Your task to perform on an android device: turn off notifications in google photos Image 0: 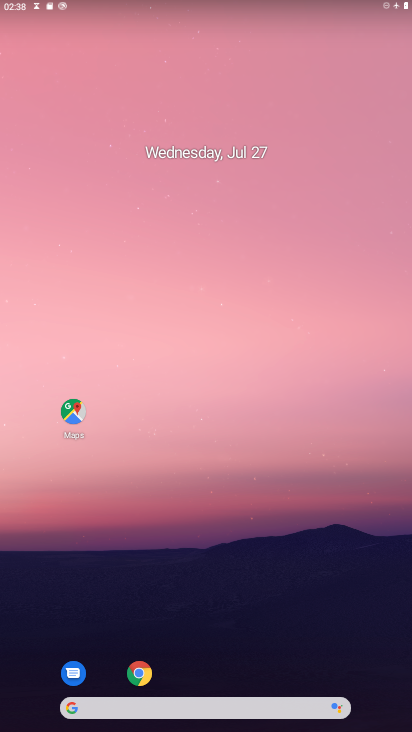
Step 0: drag from (175, 675) to (178, 274)
Your task to perform on an android device: turn off notifications in google photos Image 1: 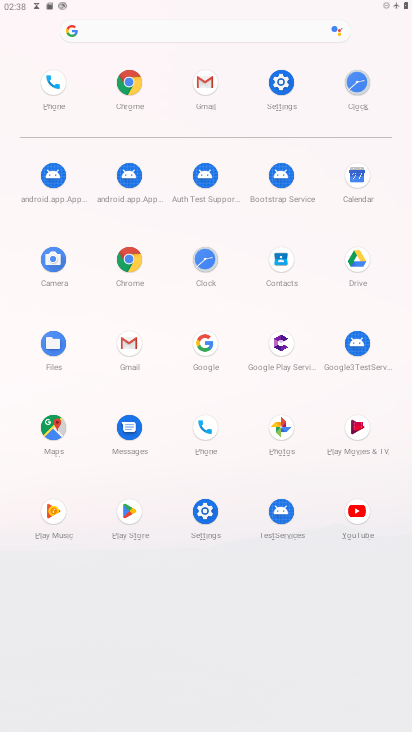
Step 1: click (275, 434)
Your task to perform on an android device: turn off notifications in google photos Image 2: 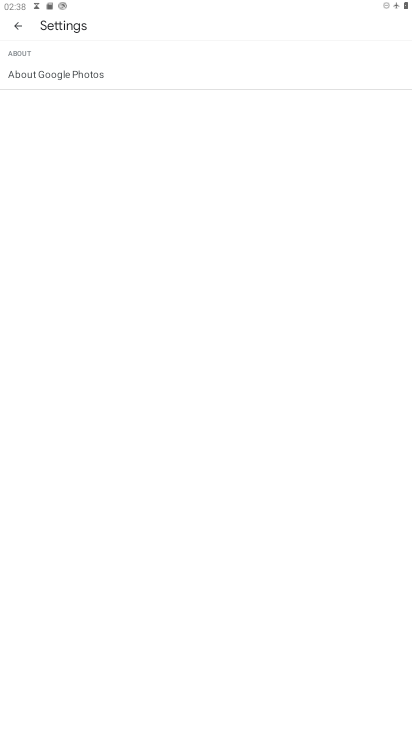
Step 2: click (12, 27)
Your task to perform on an android device: turn off notifications in google photos Image 3: 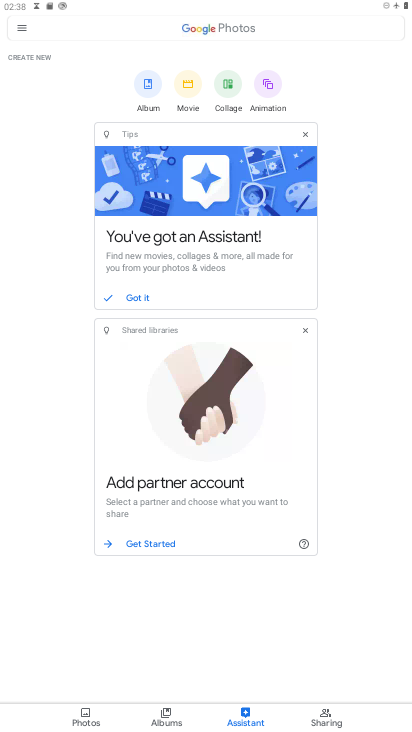
Step 3: click (24, 27)
Your task to perform on an android device: turn off notifications in google photos Image 4: 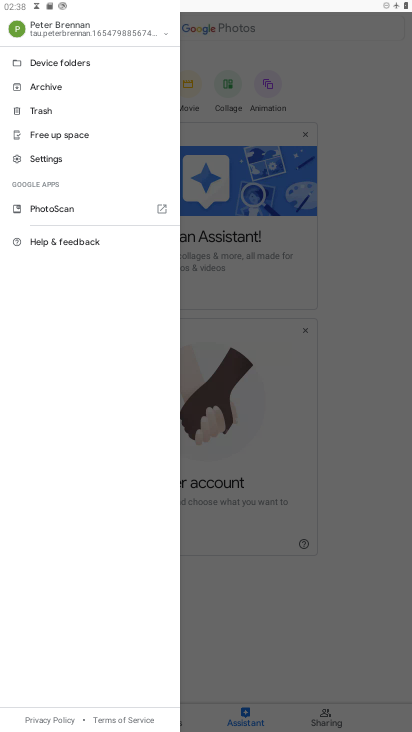
Step 4: click (40, 164)
Your task to perform on an android device: turn off notifications in google photos Image 5: 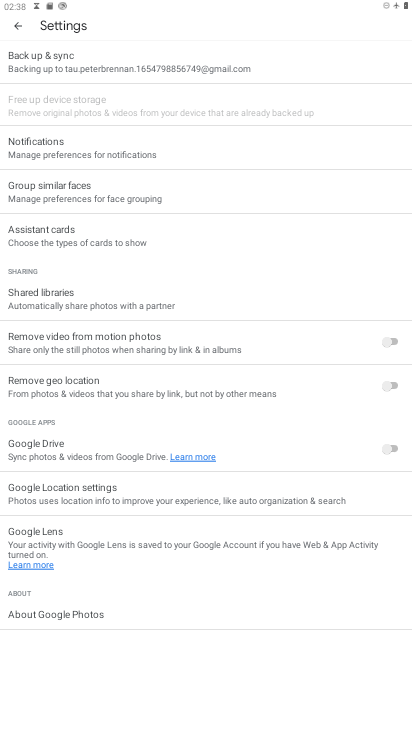
Step 5: click (62, 142)
Your task to perform on an android device: turn off notifications in google photos Image 6: 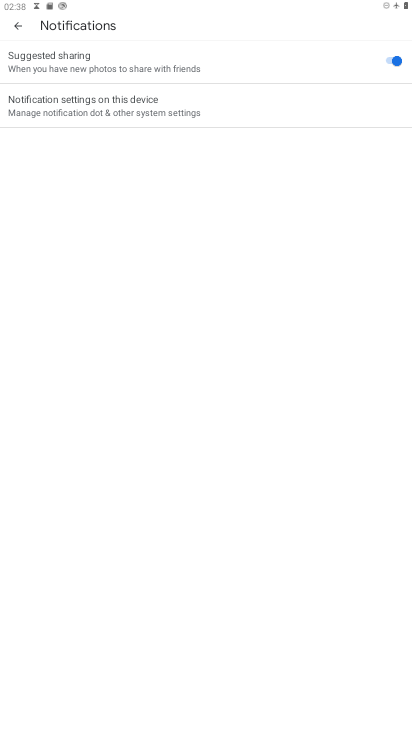
Step 6: click (110, 98)
Your task to perform on an android device: turn off notifications in google photos Image 7: 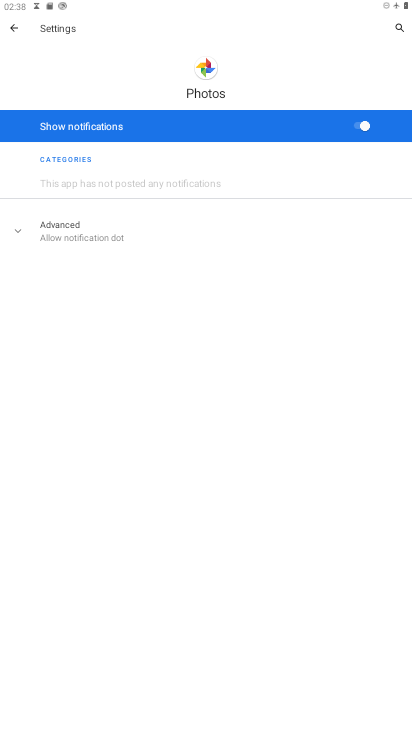
Step 7: click (354, 125)
Your task to perform on an android device: turn off notifications in google photos Image 8: 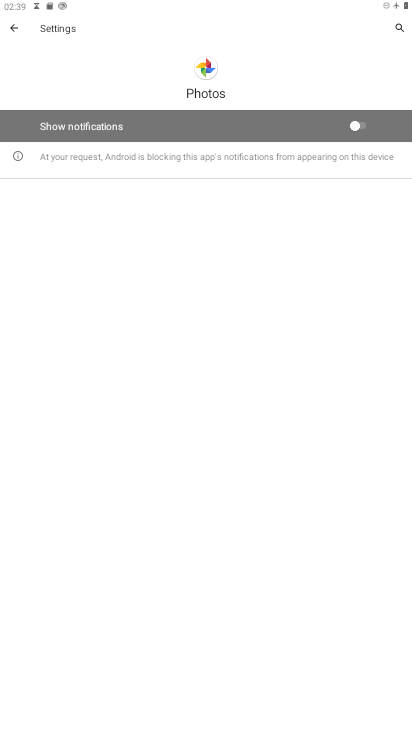
Step 8: task complete